Your task to perform on an android device: check battery use Image 0: 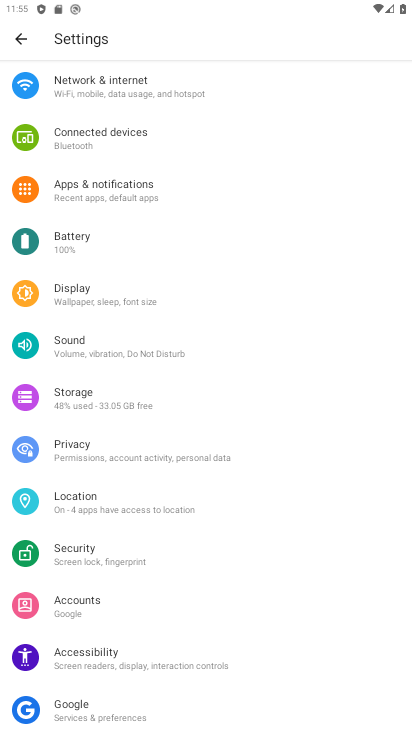
Step 0: click (89, 245)
Your task to perform on an android device: check battery use Image 1: 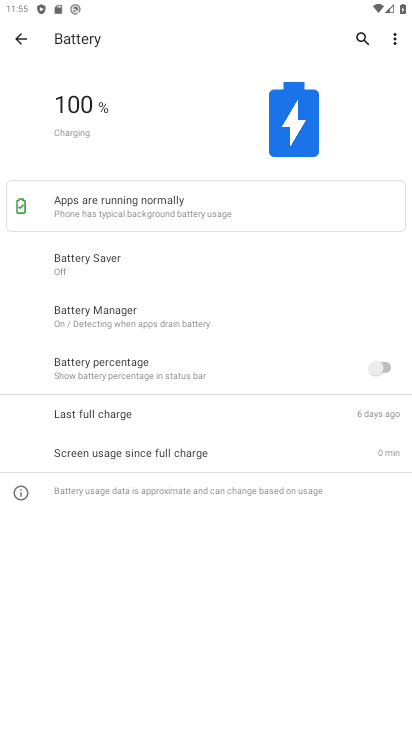
Step 1: click (397, 31)
Your task to perform on an android device: check battery use Image 2: 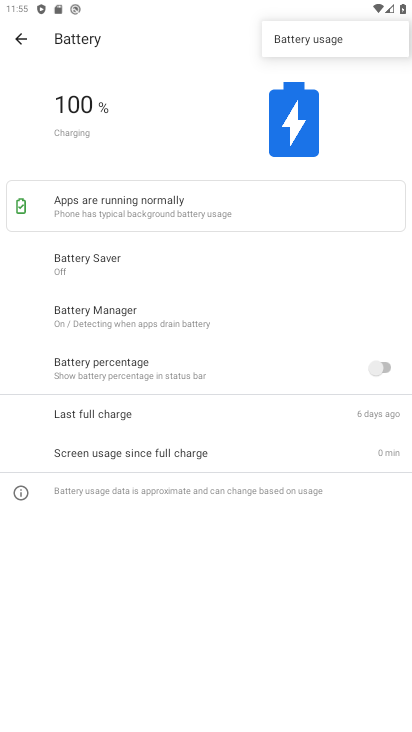
Step 2: click (338, 35)
Your task to perform on an android device: check battery use Image 3: 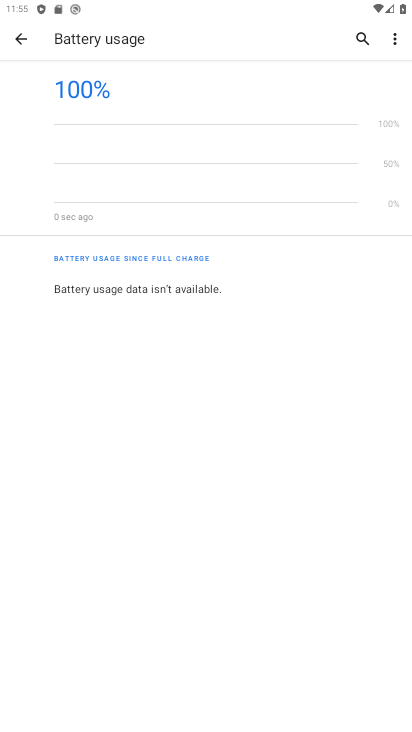
Step 3: task complete